Your task to perform on an android device: find which apps use the phone's location Image 0: 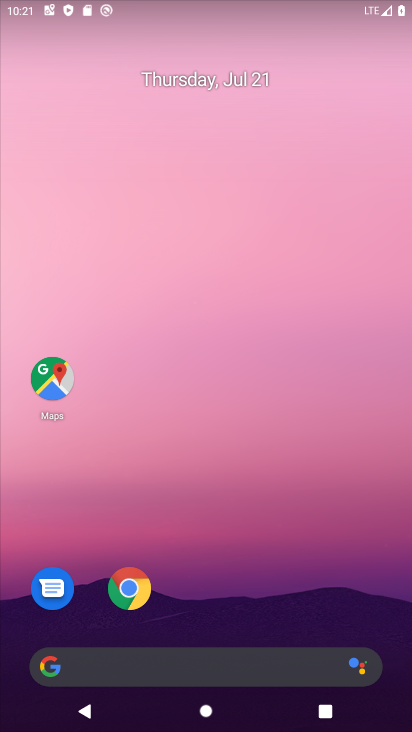
Step 0: drag from (378, 606) to (294, 24)
Your task to perform on an android device: find which apps use the phone's location Image 1: 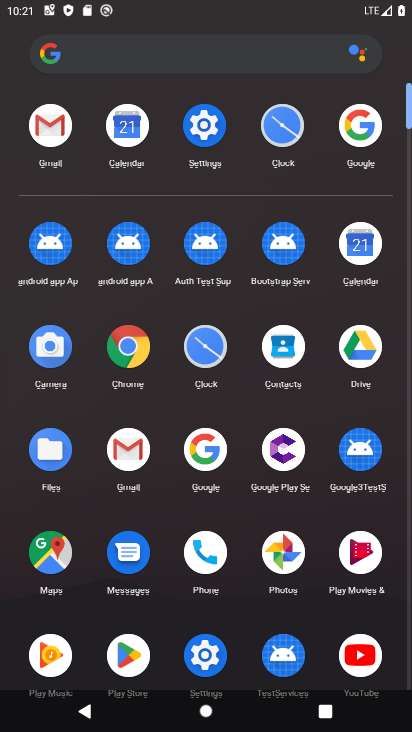
Step 1: click (194, 133)
Your task to perform on an android device: find which apps use the phone's location Image 2: 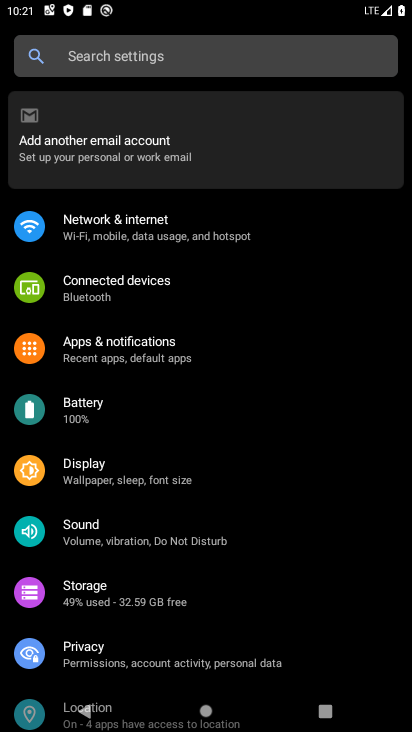
Step 2: click (92, 606)
Your task to perform on an android device: find which apps use the phone's location Image 3: 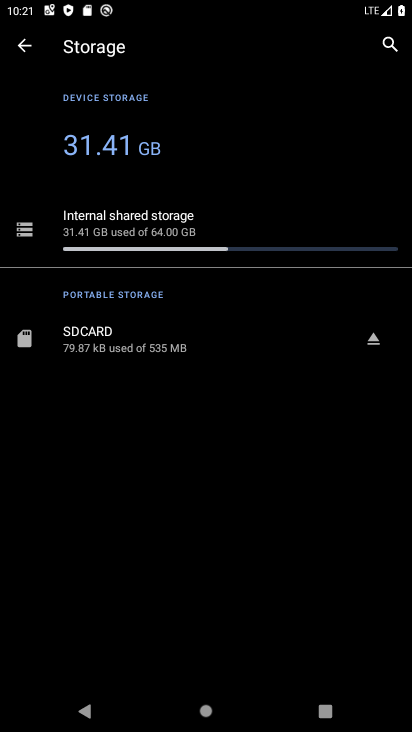
Step 3: click (16, 52)
Your task to perform on an android device: find which apps use the phone's location Image 4: 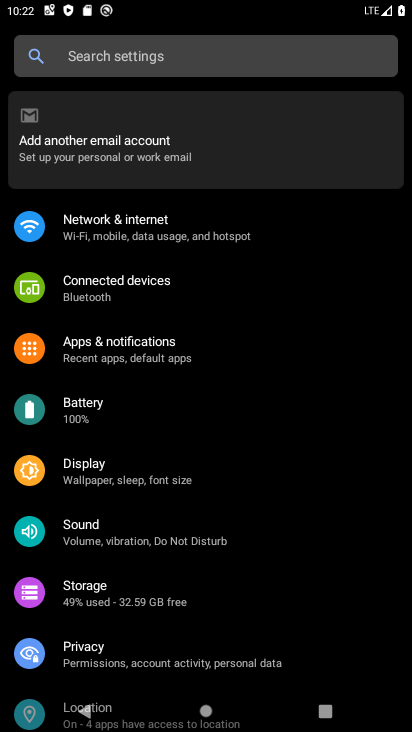
Step 4: click (56, 706)
Your task to perform on an android device: find which apps use the phone's location Image 5: 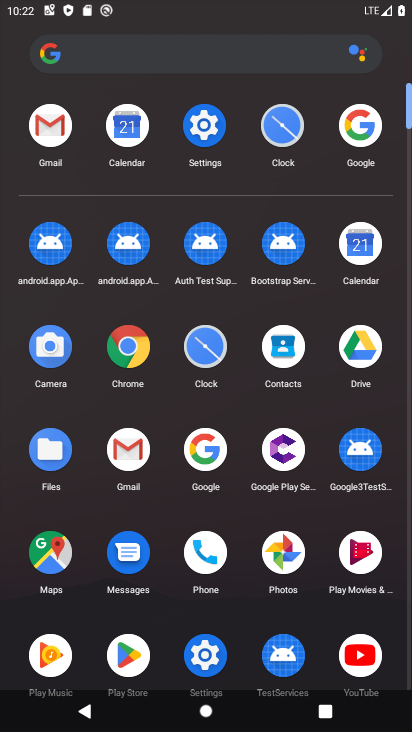
Step 5: click (211, 124)
Your task to perform on an android device: find which apps use the phone's location Image 6: 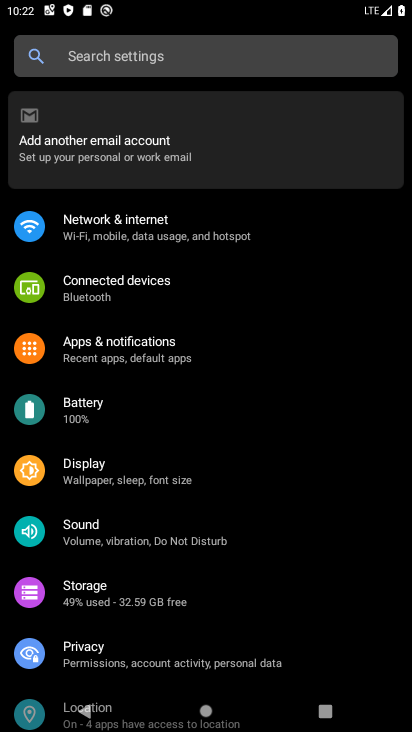
Step 6: drag from (280, 595) to (283, 300)
Your task to perform on an android device: find which apps use the phone's location Image 7: 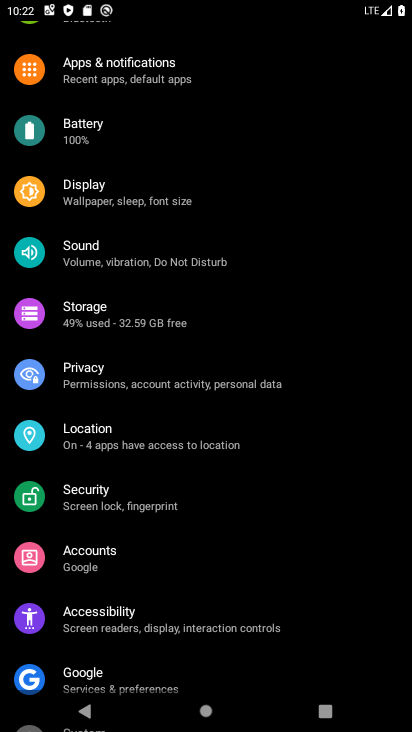
Step 7: click (99, 436)
Your task to perform on an android device: find which apps use the phone's location Image 8: 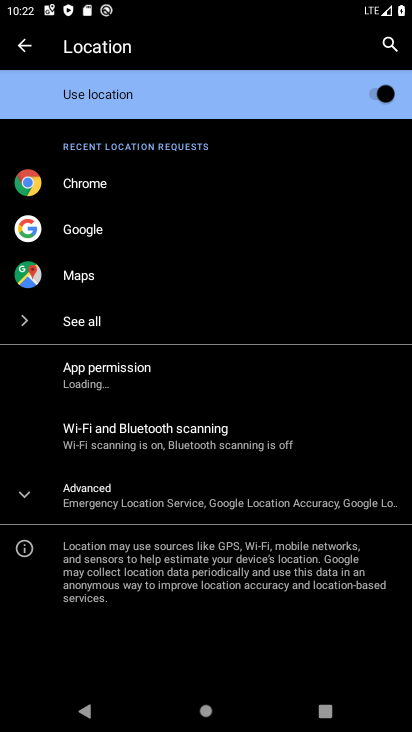
Step 8: click (73, 371)
Your task to perform on an android device: find which apps use the phone's location Image 9: 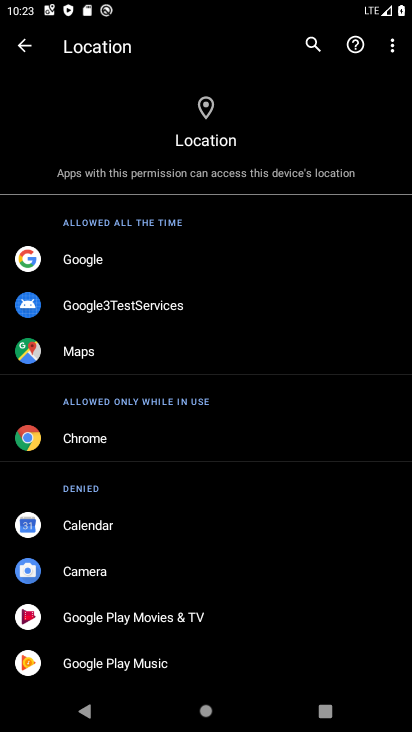
Step 9: task complete